Your task to perform on an android device: delete the emails in spam in the gmail app Image 0: 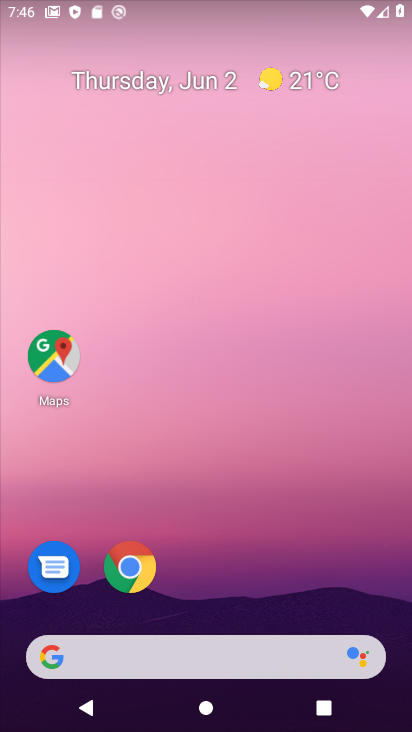
Step 0: drag from (368, 604) to (318, 65)
Your task to perform on an android device: delete the emails in spam in the gmail app Image 1: 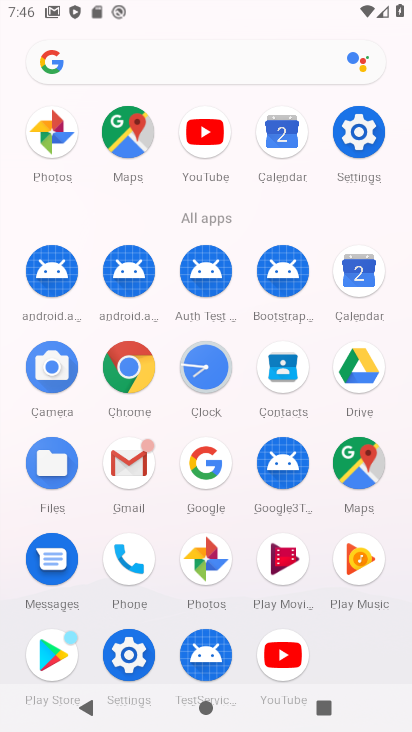
Step 1: click (127, 460)
Your task to perform on an android device: delete the emails in spam in the gmail app Image 2: 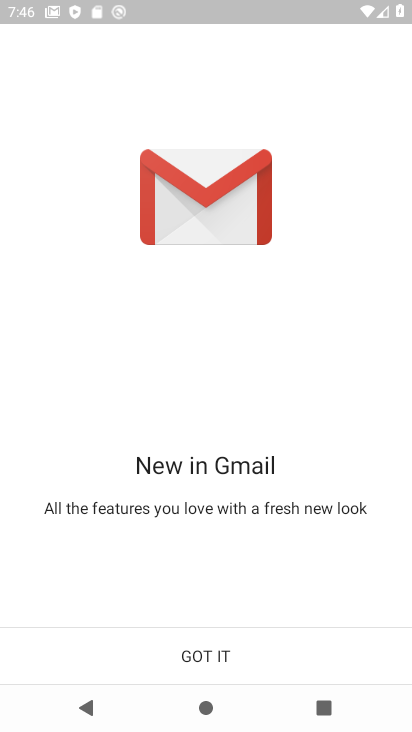
Step 2: click (206, 667)
Your task to perform on an android device: delete the emails in spam in the gmail app Image 3: 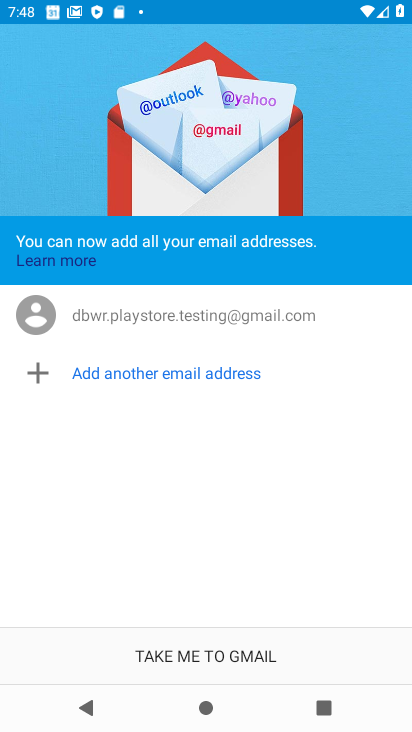
Step 3: click (176, 659)
Your task to perform on an android device: delete the emails in spam in the gmail app Image 4: 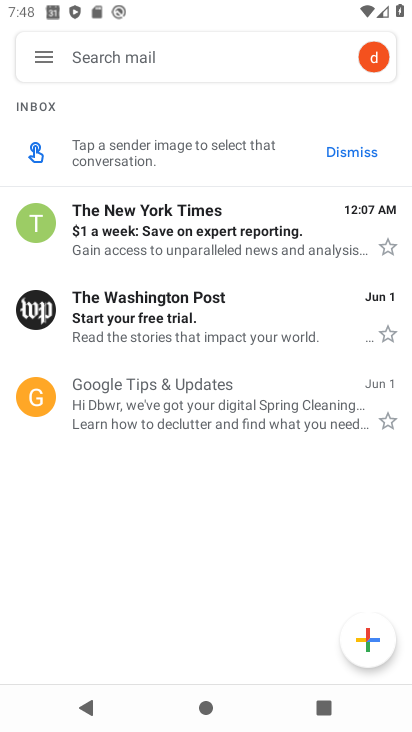
Step 4: click (191, 216)
Your task to perform on an android device: delete the emails in spam in the gmail app Image 5: 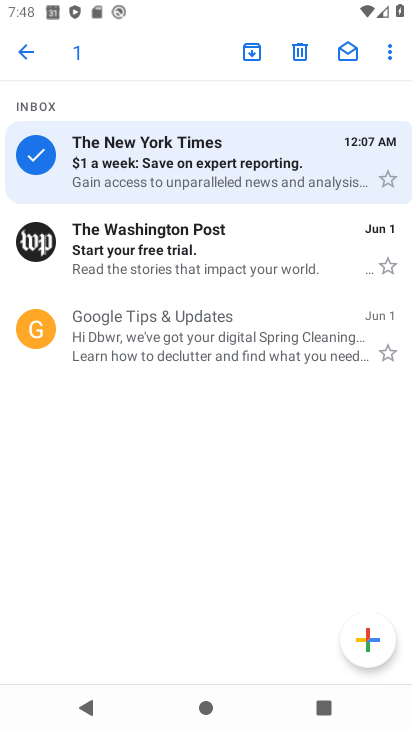
Step 5: click (301, 57)
Your task to perform on an android device: delete the emails in spam in the gmail app Image 6: 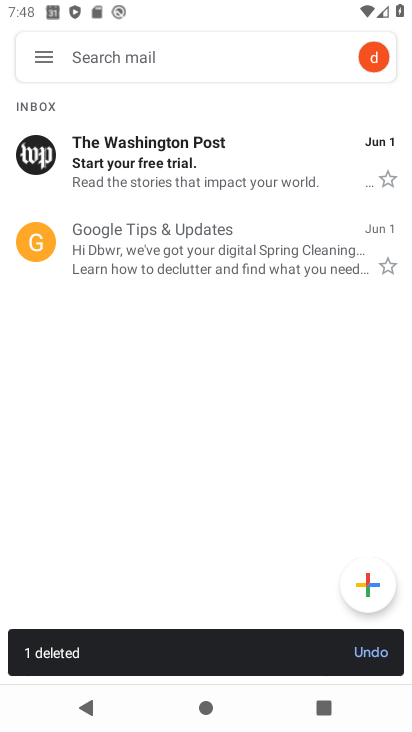
Step 6: task complete